Your task to perform on an android device: check storage Image 0: 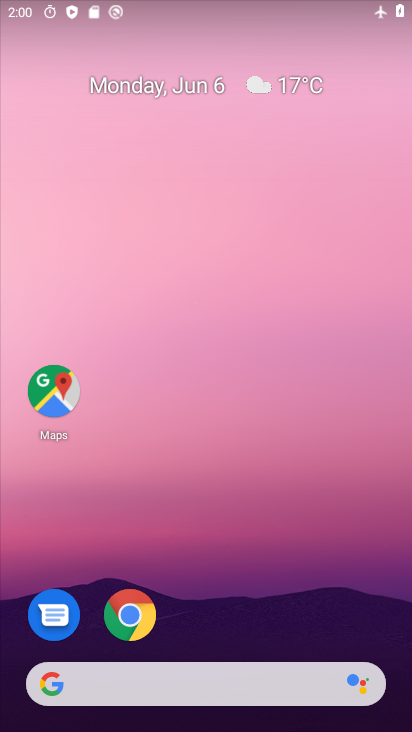
Step 0: click (408, 287)
Your task to perform on an android device: check storage Image 1: 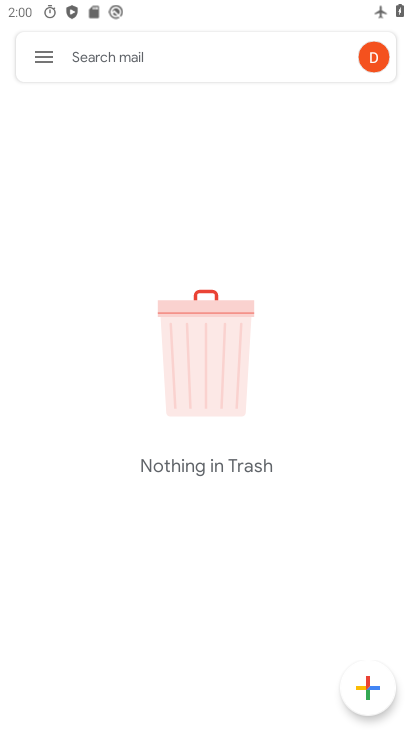
Step 1: press home button
Your task to perform on an android device: check storage Image 2: 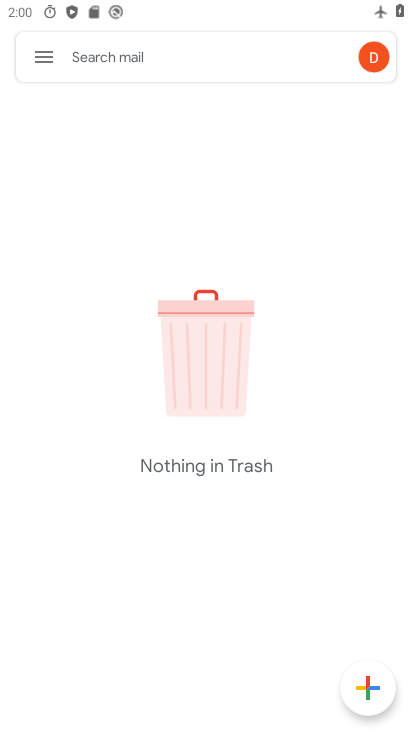
Step 2: drag from (408, 287) to (316, 152)
Your task to perform on an android device: check storage Image 3: 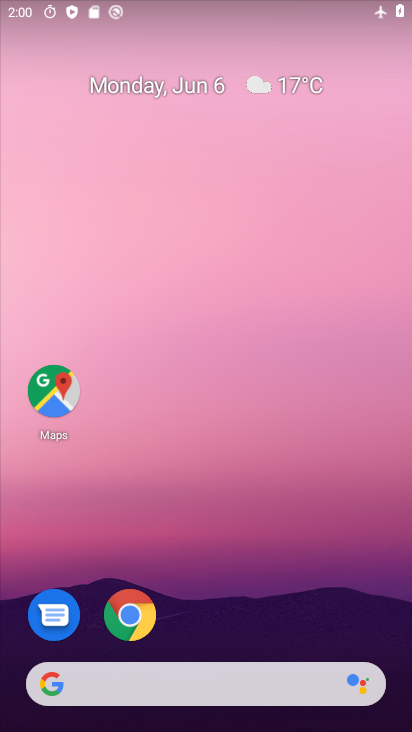
Step 3: drag from (243, 583) to (317, 253)
Your task to perform on an android device: check storage Image 4: 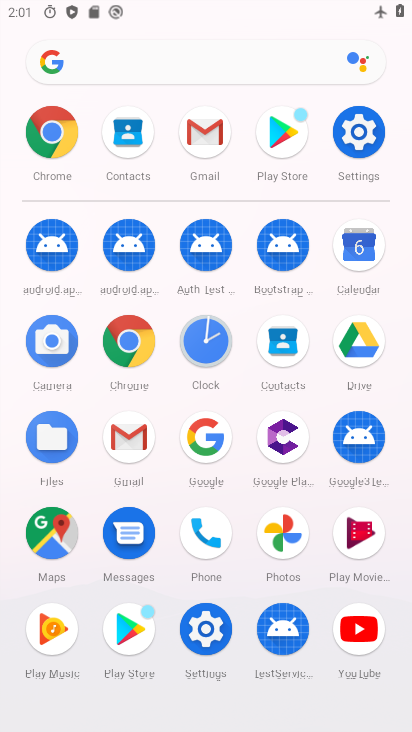
Step 4: click (187, 629)
Your task to perform on an android device: check storage Image 5: 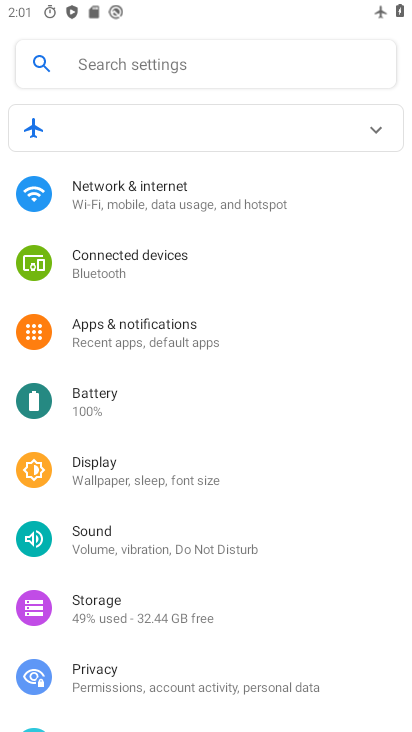
Step 5: click (278, 190)
Your task to perform on an android device: check storage Image 6: 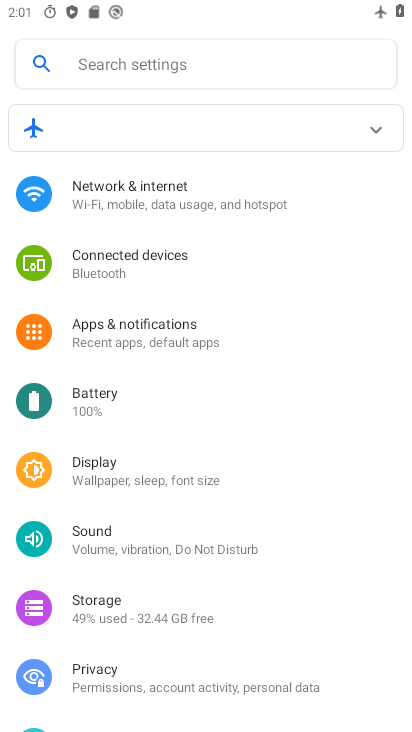
Step 6: click (278, 192)
Your task to perform on an android device: check storage Image 7: 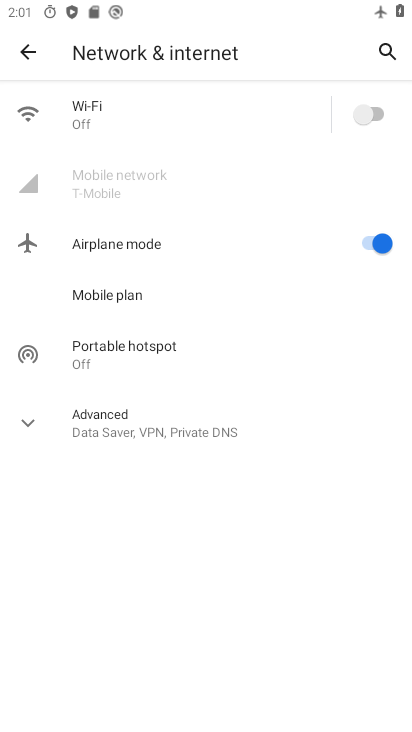
Step 7: click (24, 63)
Your task to perform on an android device: check storage Image 8: 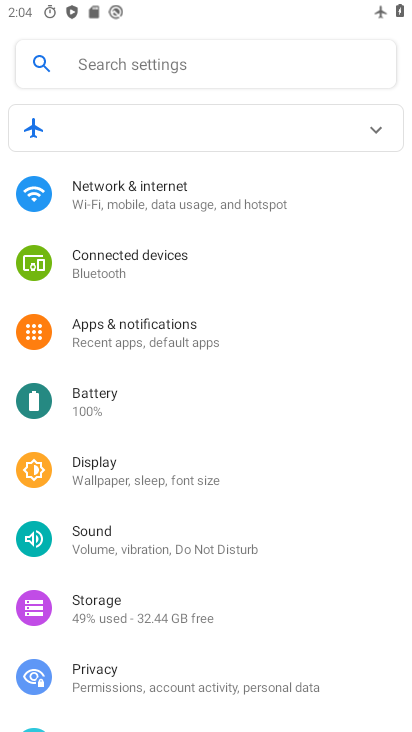
Step 8: drag from (183, 334) to (245, 158)
Your task to perform on an android device: check storage Image 9: 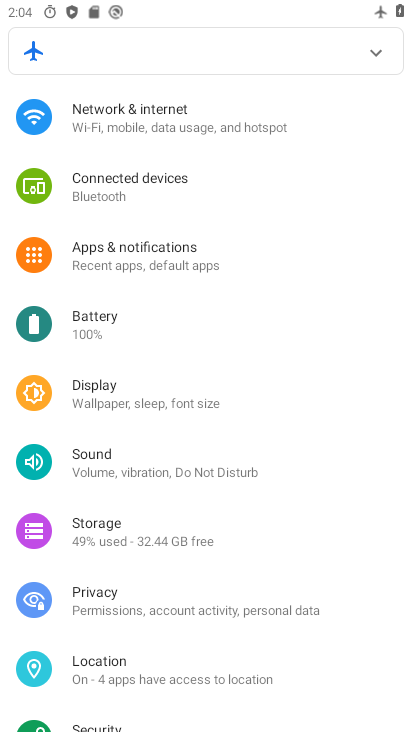
Step 9: click (131, 532)
Your task to perform on an android device: check storage Image 10: 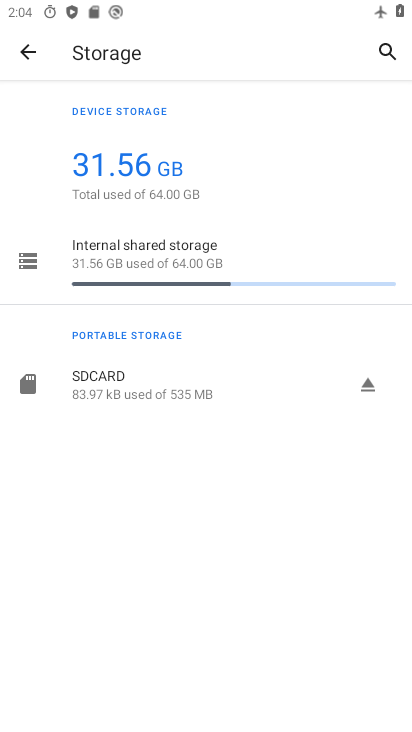
Step 10: task complete